Your task to perform on an android device: read, delete, or share a saved page in the chrome app Image 0: 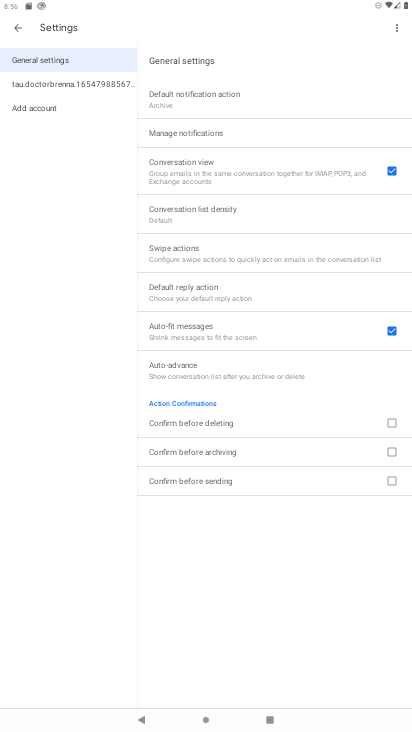
Step 0: press back button
Your task to perform on an android device: read, delete, or share a saved page in the chrome app Image 1: 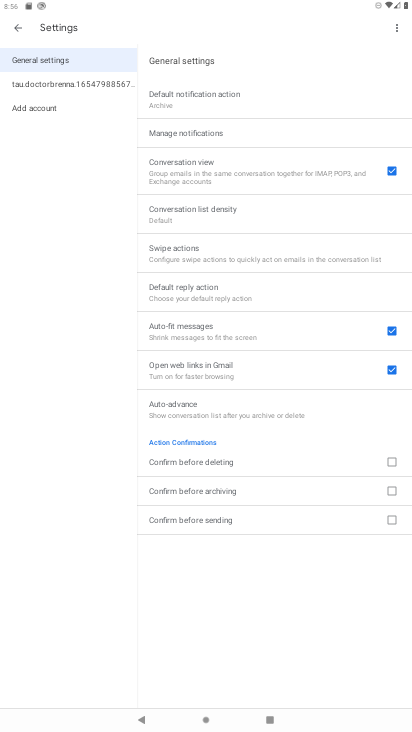
Step 1: press home button
Your task to perform on an android device: read, delete, or share a saved page in the chrome app Image 2: 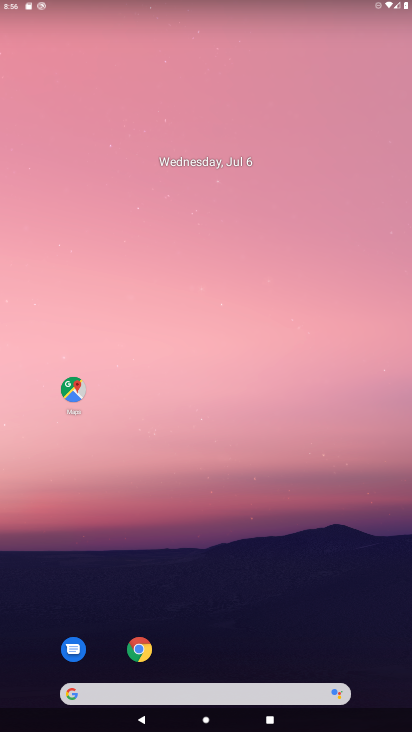
Step 2: drag from (256, 496) to (221, 190)
Your task to perform on an android device: read, delete, or share a saved page in the chrome app Image 3: 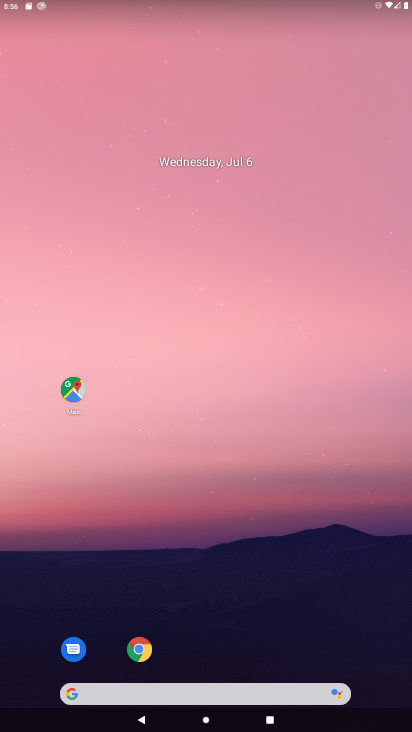
Step 3: drag from (299, 608) to (235, 197)
Your task to perform on an android device: read, delete, or share a saved page in the chrome app Image 4: 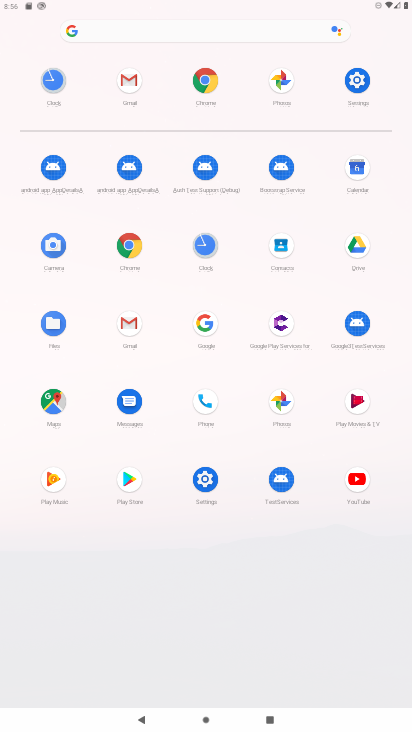
Step 4: click (129, 247)
Your task to perform on an android device: read, delete, or share a saved page in the chrome app Image 5: 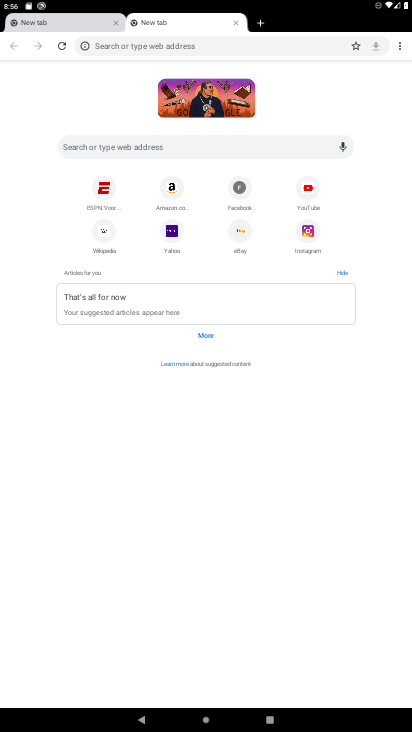
Step 5: drag from (399, 48) to (319, 170)
Your task to perform on an android device: read, delete, or share a saved page in the chrome app Image 6: 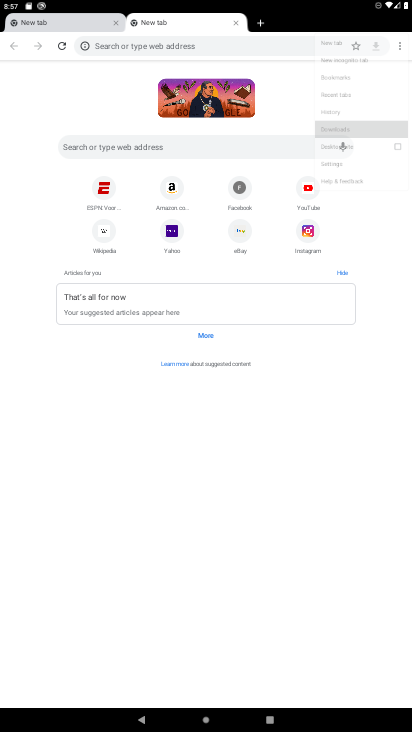
Step 6: click (319, 170)
Your task to perform on an android device: read, delete, or share a saved page in the chrome app Image 7: 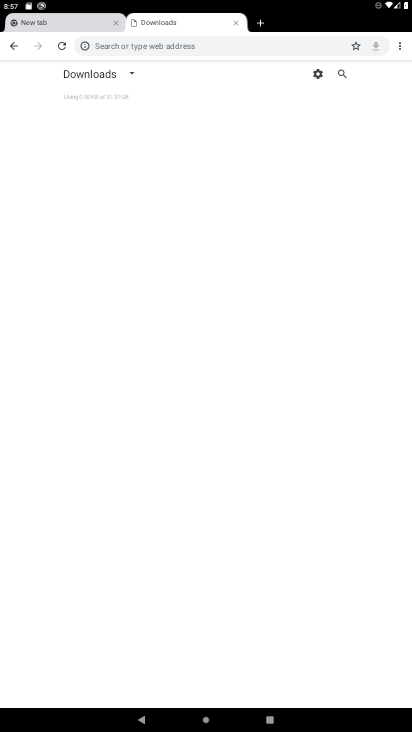
Step 7: click (319, 171)
Your task to perform on an android device: read, delete, or share a saved page in the chrome app Image 8: 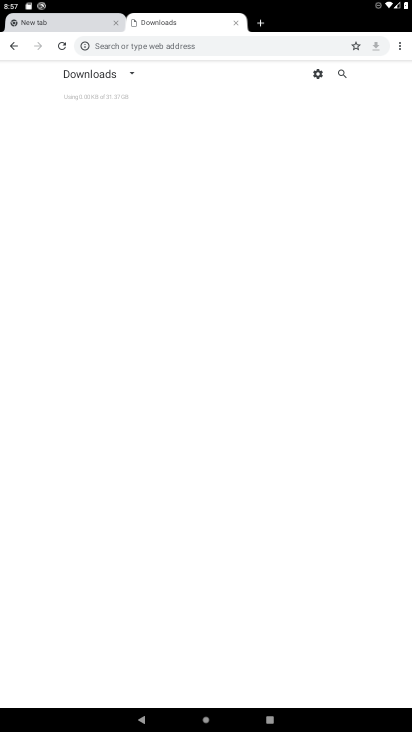
Step 8: click (127, 68)
Your task to perform on an android device: read, delete, or share a saved page in the chrome app Image 9: 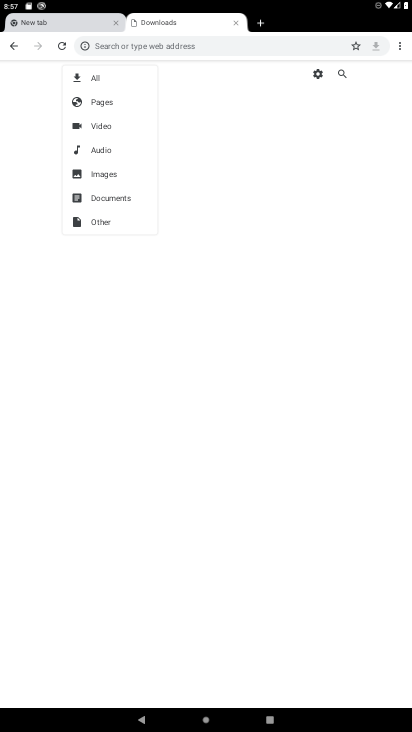
Step 9: click (110, 106)
Your task to perform on an android device: read, delete, or share a saved page in the chrome app Image 10: 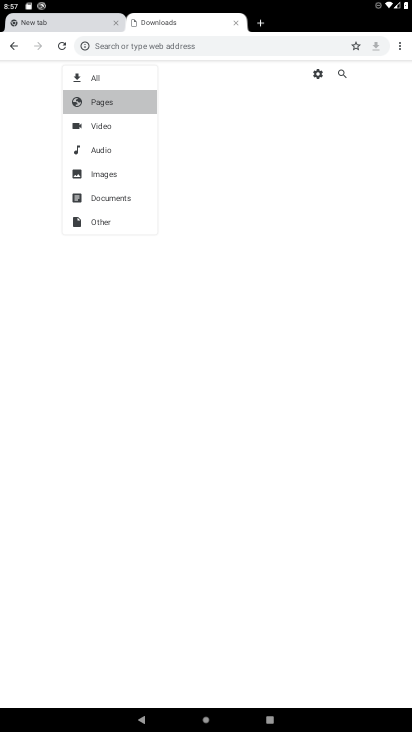
Step 10: click (112, 104)
Your task to perform on an android device: read, delete, or share a saved page in the chrome app Image 11: 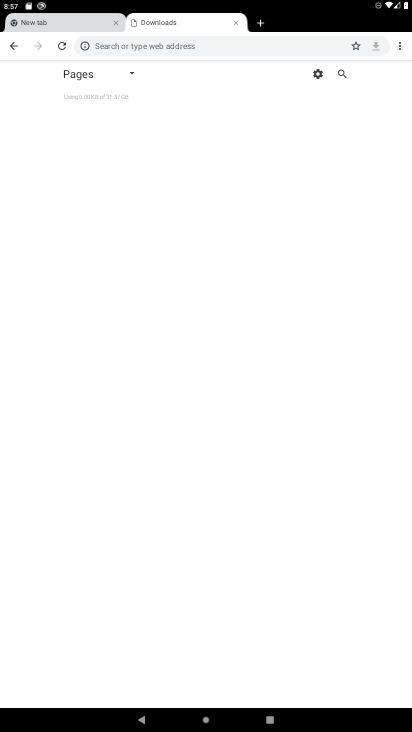
Step 11: task complete